Your task to perform on an android device: turn on sleep mode Image 0: 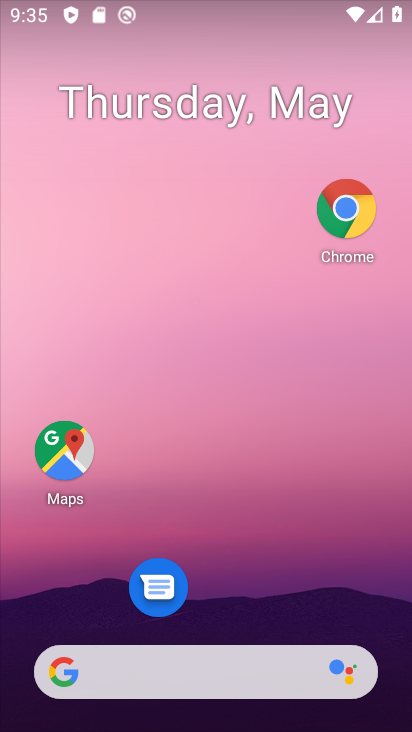
Step 0: drag from (210, 588) to (273, 136)
Your task to perform on an android device: turn on sleep mode Image 1: 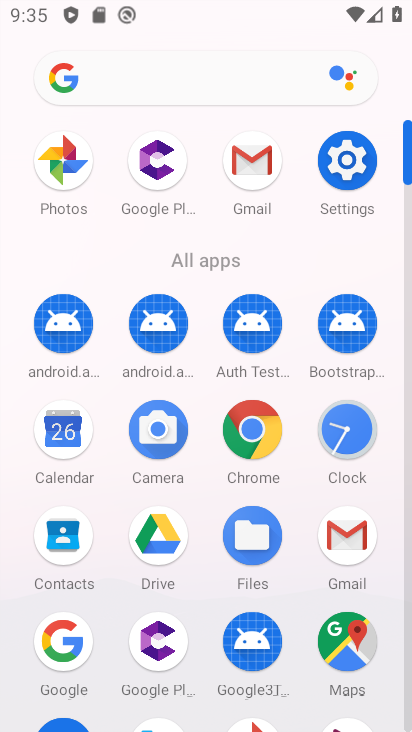
Step 1: click (351, 171)
Your task to perform on an android device: turn on sleep mode Image 2: 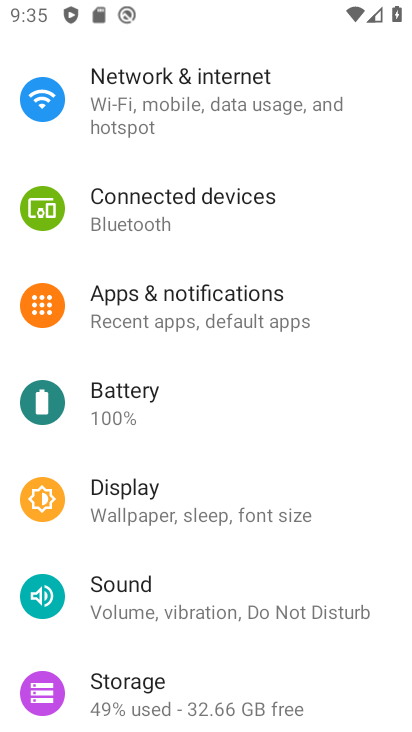
Step 2: task complete